Your task to perform on an android device: Search for Italian restaurants on Maps Image 0: 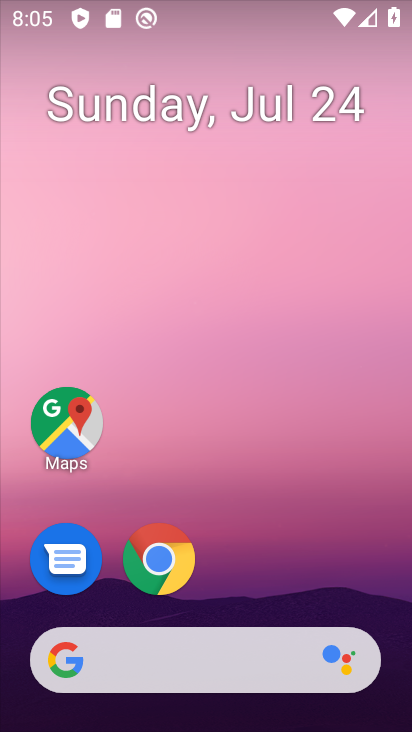
Step 0: press home button
Your task to perform on an android device: Search for Italian restaurants on Maps Image 1: 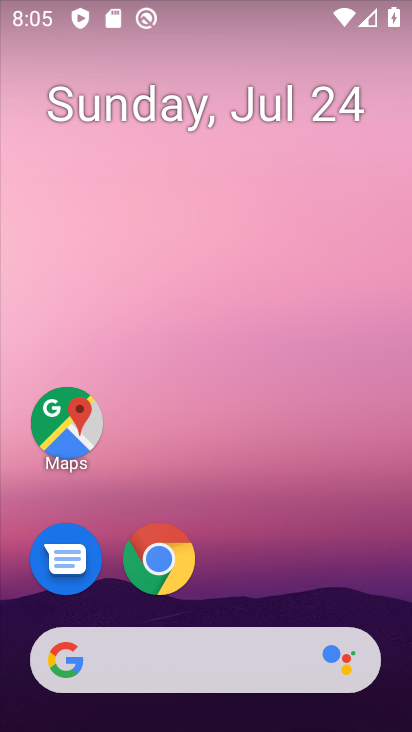
Step 1: drag from (364, 583) to (368, 144)
Your task to perform on an android device: Search for Italian restaurants on Maps Image 2: 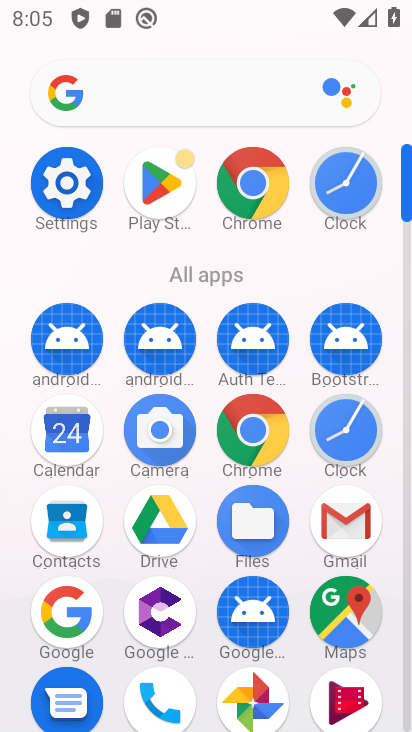
Step 2: click (351, 617)
Your task to perform on an android device: Search for Italian restaurants on Maps Image 3: 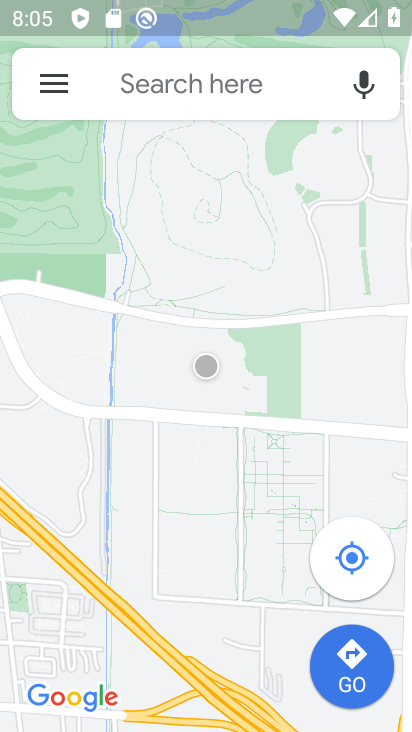
Step 3: click (235, 85)
Your task to perform on an android device: Search for Italian restaurants on Maps Image 4: 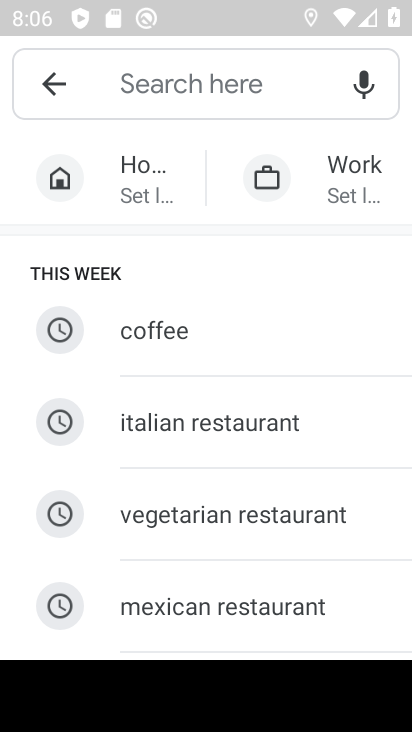
Step 4: type "italian restaurants"
Your task to perform on an android device: Search for Italian restaurants on Maps Image 5: 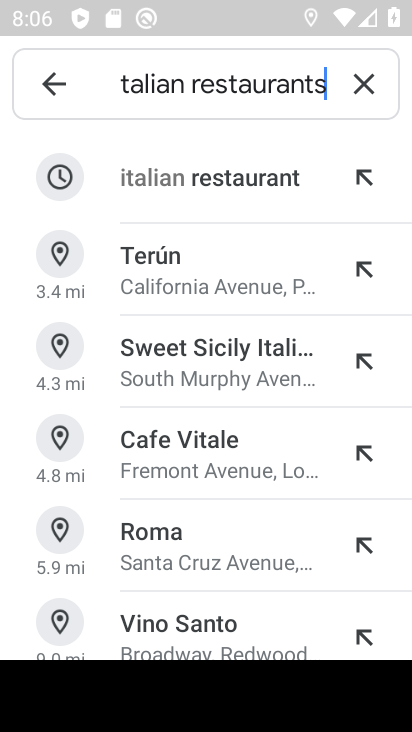
Step 5: click (305, 186)
Your task to perform on an android device: Search for Italian restaurants on Maps Image 6: 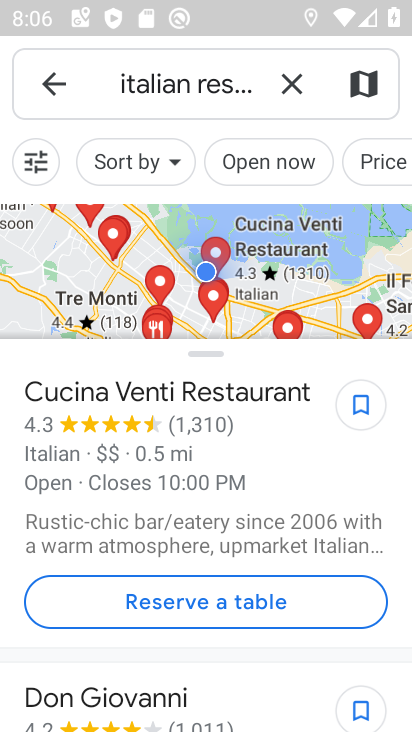
Step 6: task complete